Your task to perform on an android device: Open the stopwatch Image 0: 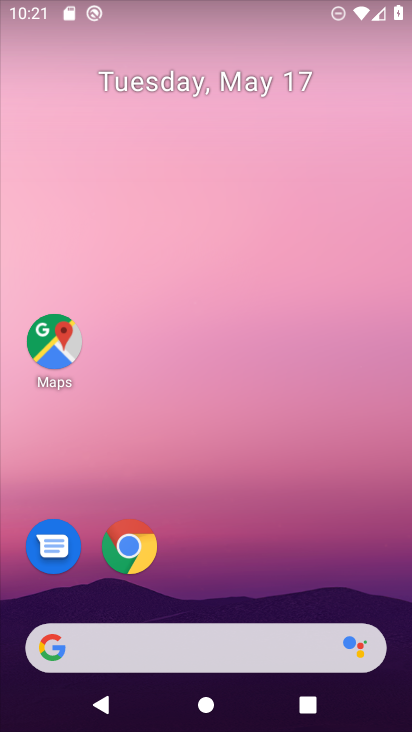
Step 0: drag from (275, 604) to (296, 5)
Your task to perform on an android device: Open the stopwatch Image 1: 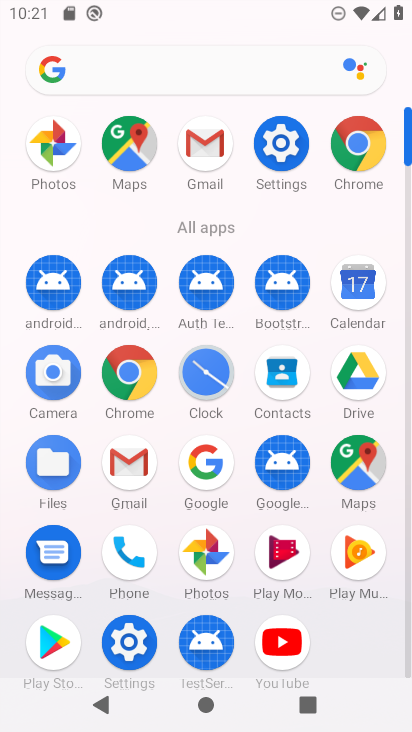
Step 1: click (193, 379)
Your task to perform on an android device: Open the stopwatch Image 2: 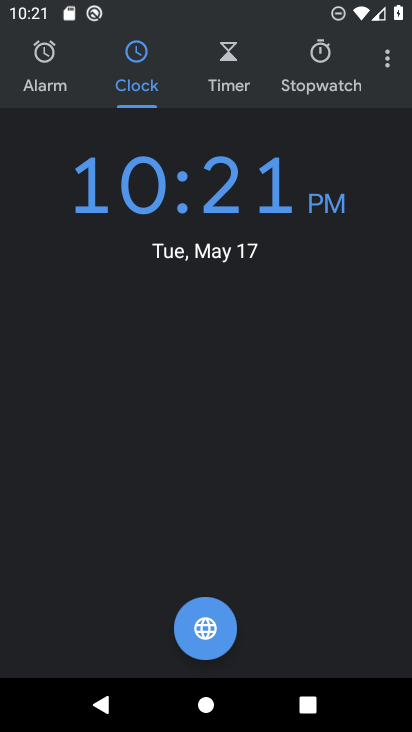
Step 2: click (325, 86)
Your task to perform on an android device: Open the stopwatch Image 3: 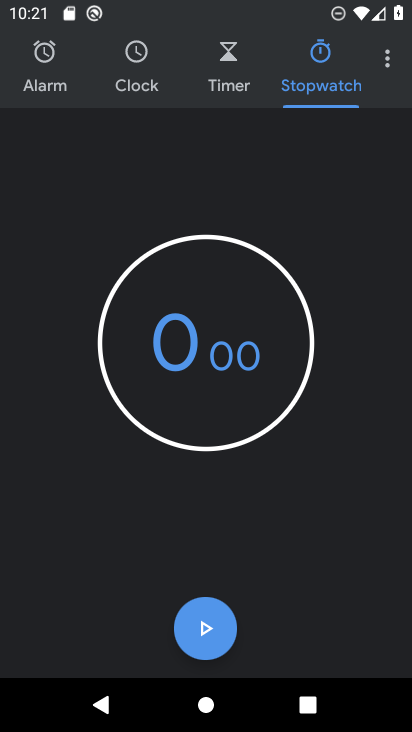
Step 3: task complete